Your task to perform on an android device: Go to sound settings Image 0: 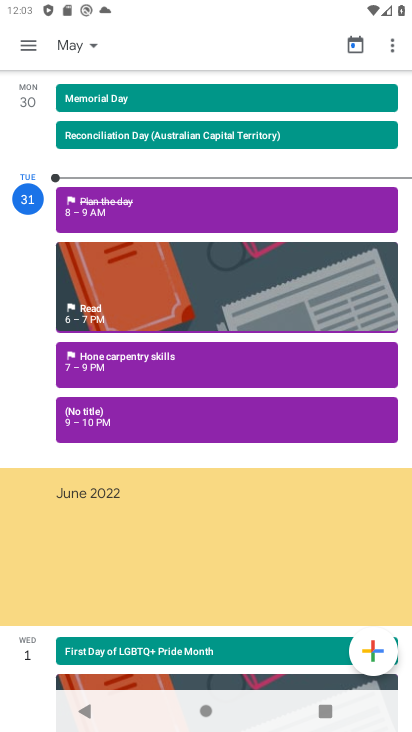
Step 0: press home button
Your task to perform on an android device: Go to sound settings Image 1: 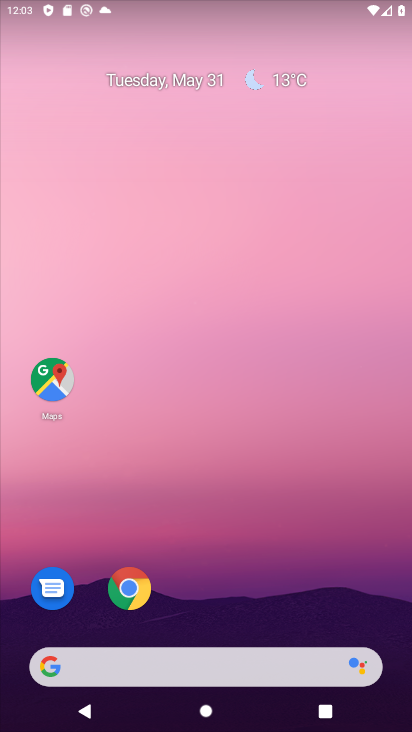
Step 1: drag from (387, 698) to (229, 133)
Your task to perform on an android device: Go to sound settings Image 2: 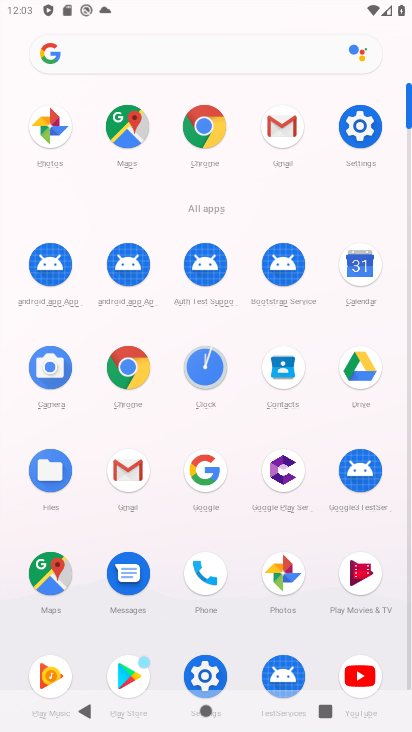
Step 2: click (348, 127)
Your task to perform on an android device: Go to sound settings Image 3: 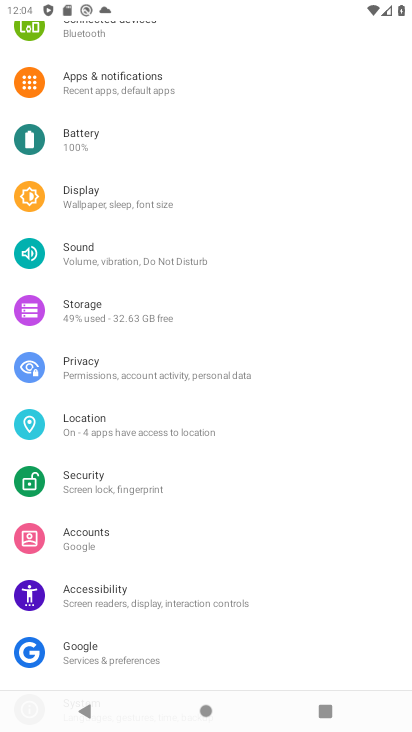
Step 3: click (83, 256)
Your task to perform on an android device: Go to sound settings Image 4: 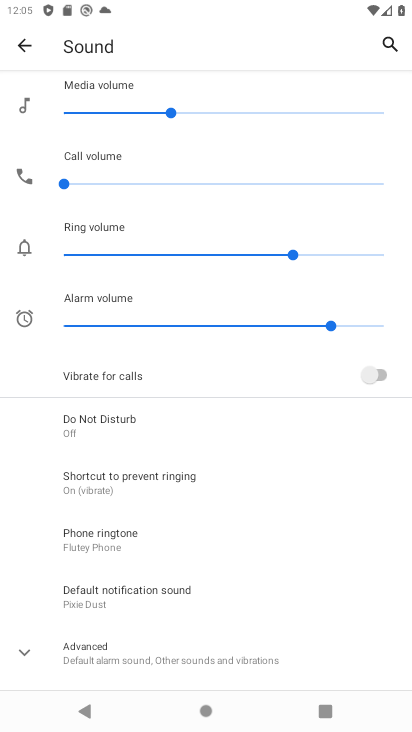
Step 4: task complete